Your task to perform on an android device: delete location history Image 0: 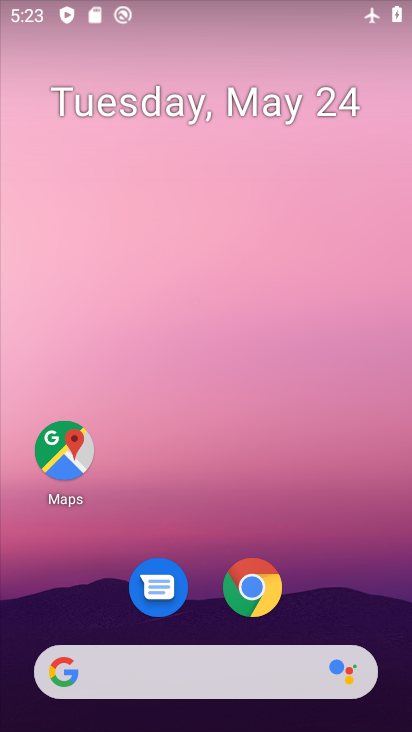
Step 0: drag from (332, 558) to (176, 9)
Your task to perform on an android device: delete location history Image 1: 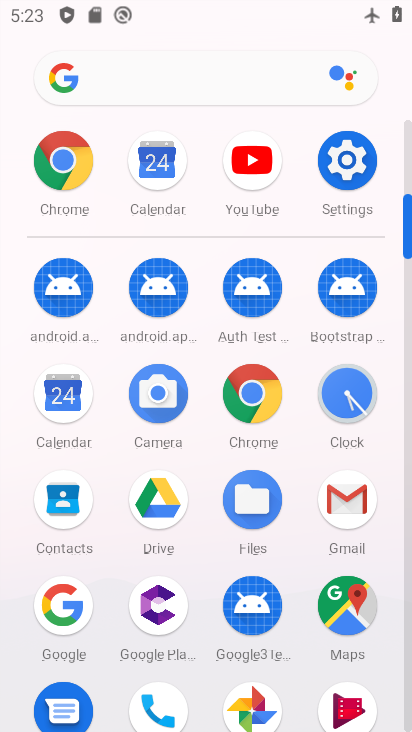
Step 1: click (348, 142)
Your task to perform on an android device: delete location history Image 2: 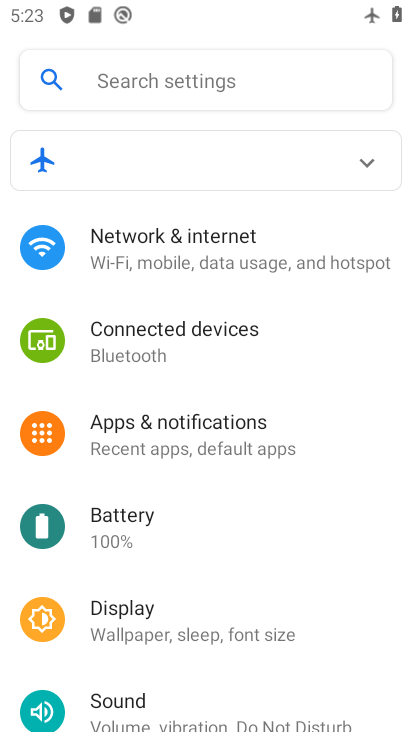
Step 2: click (168, 251)
Your task to perform on an android device: delete location history Image 3: 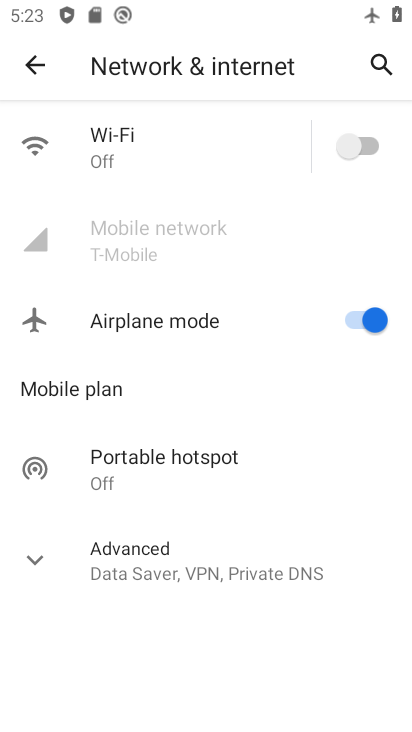
Step 3: click (357, 135)
Your task to perform on an android device: delete location history Image 4: 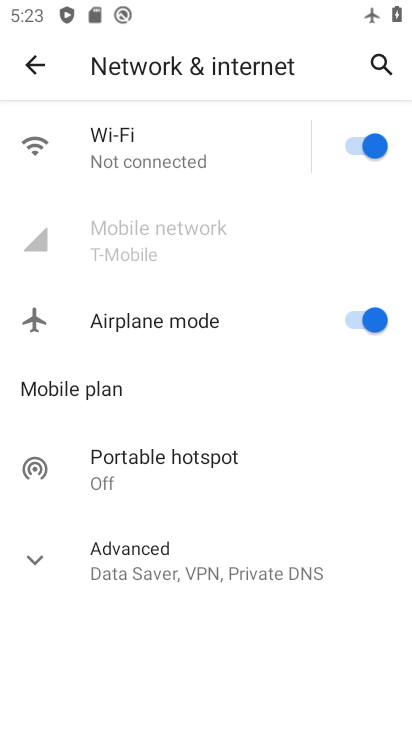
Step 4: press home button
Your task to perform on an android device: delete location history Image 5: 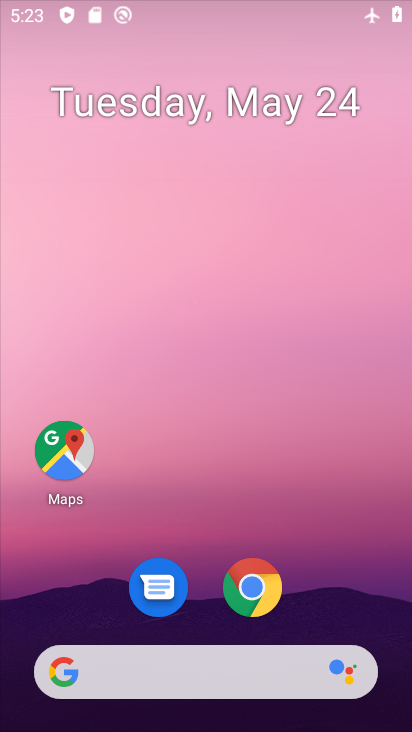
Step 5: drag from (331, 596) to (246, 31)
Your task to perform on an android device: delete location history Image 6: 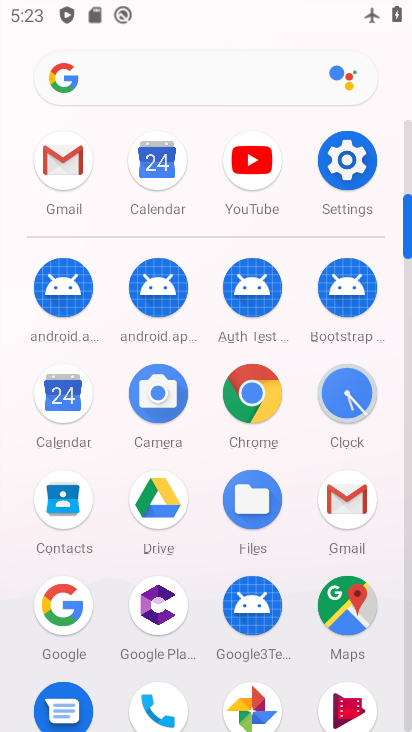
Step 6: click (333, 182)
Your task to perform on an android device: delete location history Image 7: 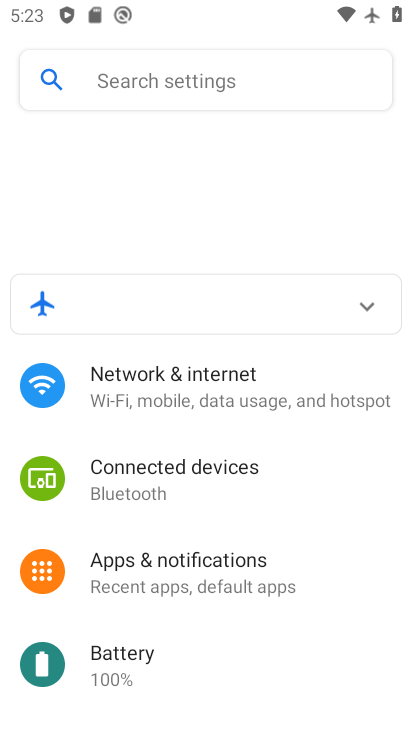
Step 7: drag from (256, 580) to (241, 39)
Your task to perform on an android device: delete location history Image 8: 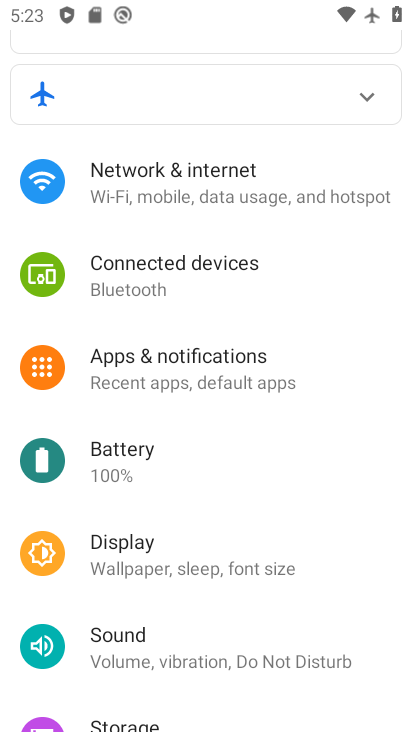
Step 8: drag from (234, 464) to (186, 2)
Your task to perform on an android device: delete location history Image 9: 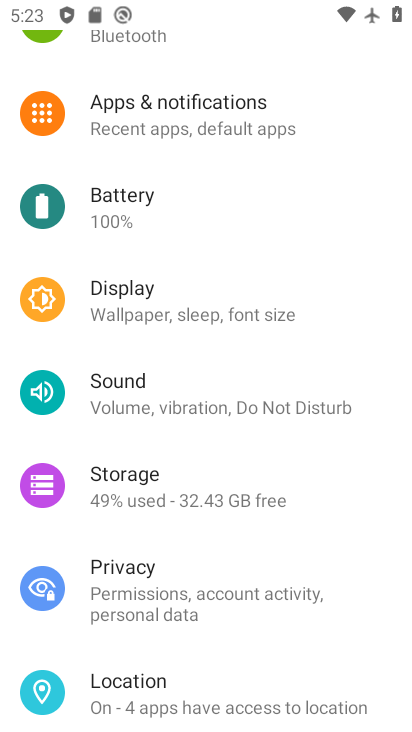
Step 9: click (196, 693)
Your task to perform on an android device: delete location history Image 10: 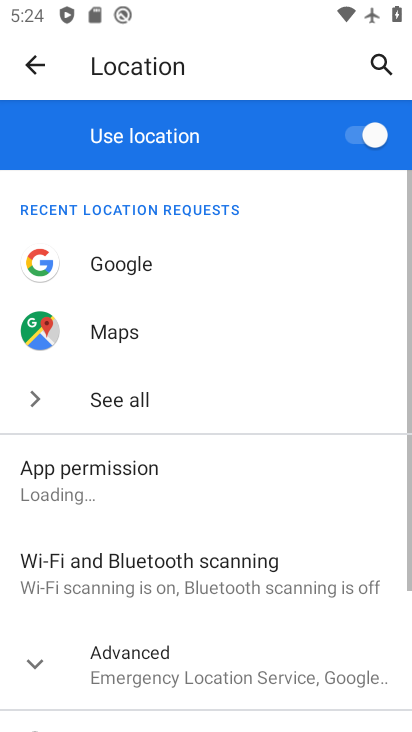
Step 10: drag from (258, 544) to (254, 94)
Your task to perform on an android device: delete location history Image 11: 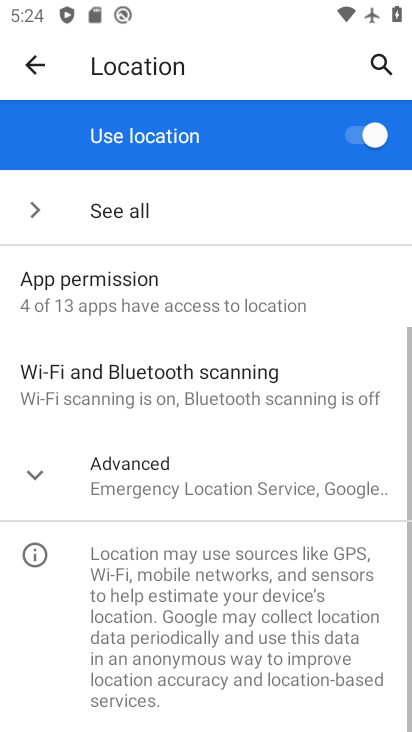
Step 11: click (199, 490)
Your task to perform on an android device: delete location history Image 12: 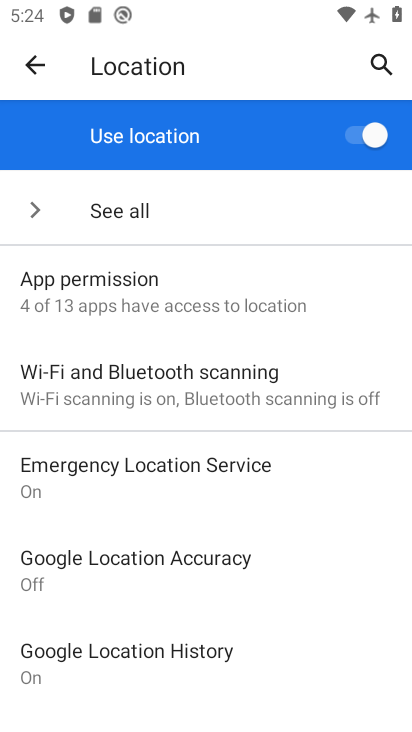
Step 12: click (217, 668)
Your task to perform on an android device: delete location history Image 13: 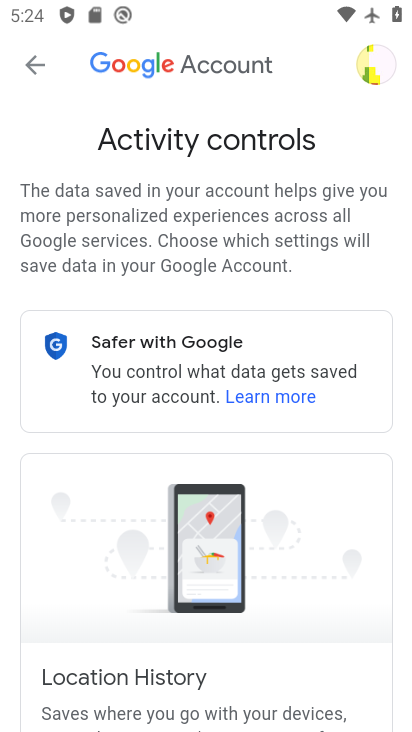
Step 13: drag from (267, 596) to (265, 128)
Your task to perform on an android device: delete location history Image 14: 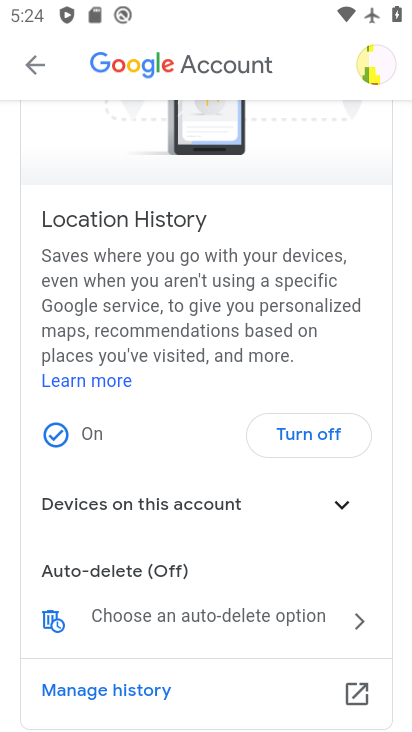
Step 14: click (49, 623)
Your task to perform on an android device: delete location history Image 15: 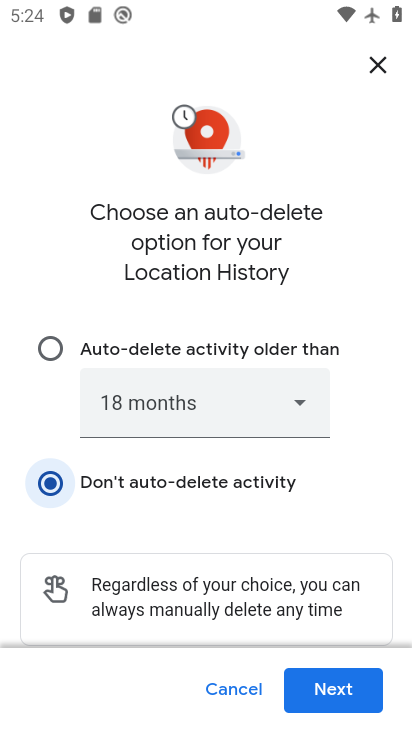
Step 15: click (348, 687)
Your task to perform on an android device: delete location history Image 16: 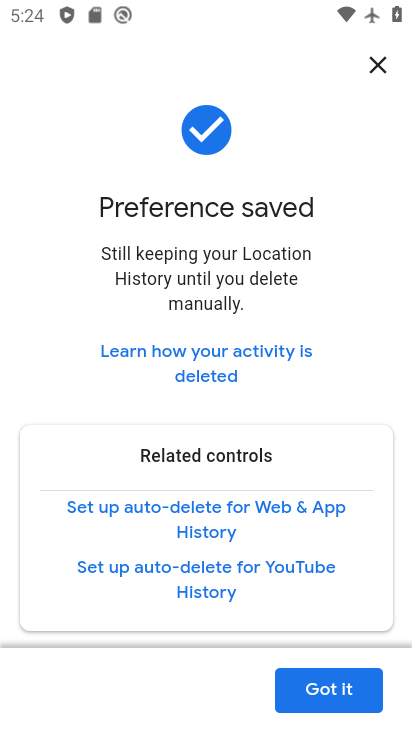
Step 16: click (344, 700)
Your task to perform on an android device: delete location history Image 17: 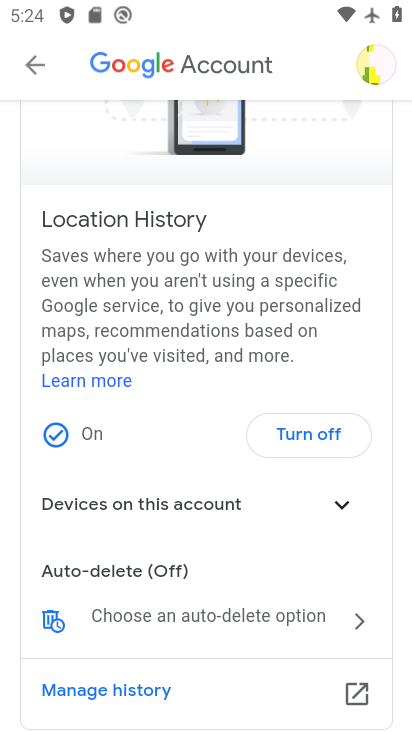
Step 17: task complete